Your task to perform on an android device: Is it going to rain tomorrow? Image 0: 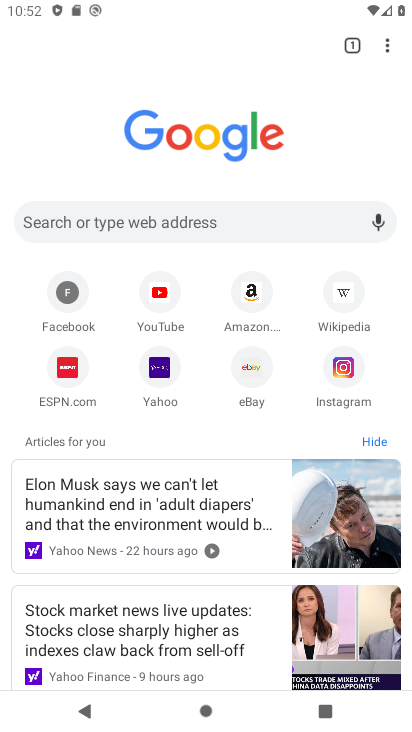
Step 0: click (175, 228)
Your task to perform on an android device: Is it going to rain tomorrow? Image 1: 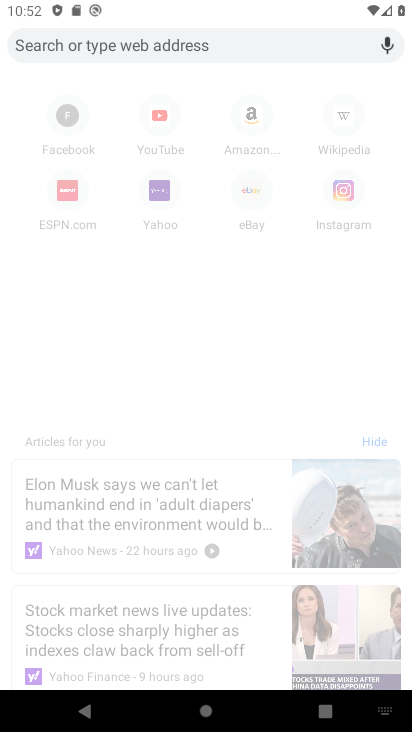
Step 1: type "is it going to rain tomorrow"
Your task to perform on an android device: Is it going to rain tomorrow? Image 2: 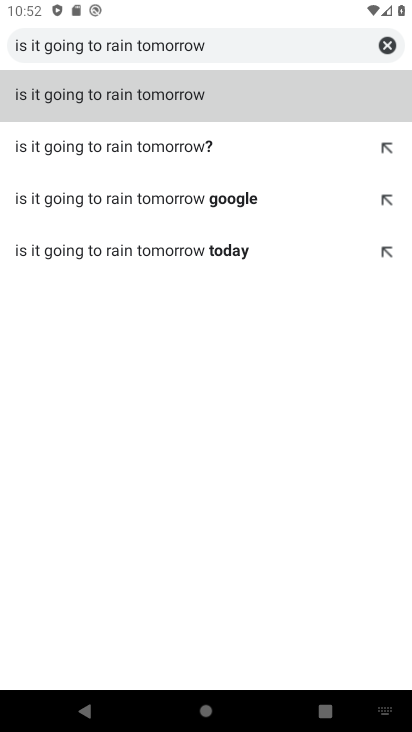
Step 2: click (170, 104)
Your task to perform on an android device: Is it going to rain tomorrow? Image 3: 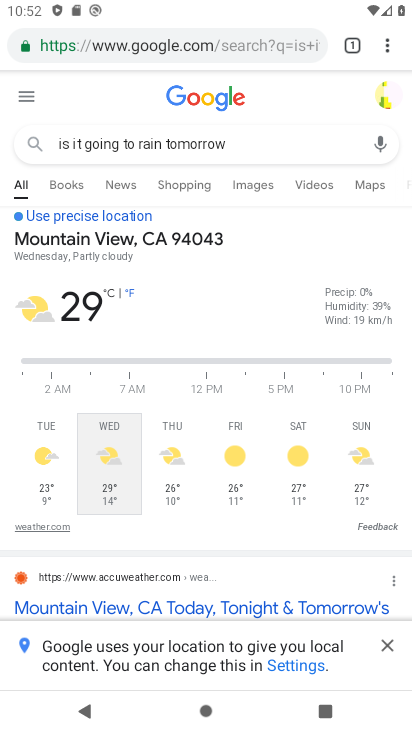
Step 3: task complete